Your task to perform on an android device: turn on improve location accuracy Image 0: 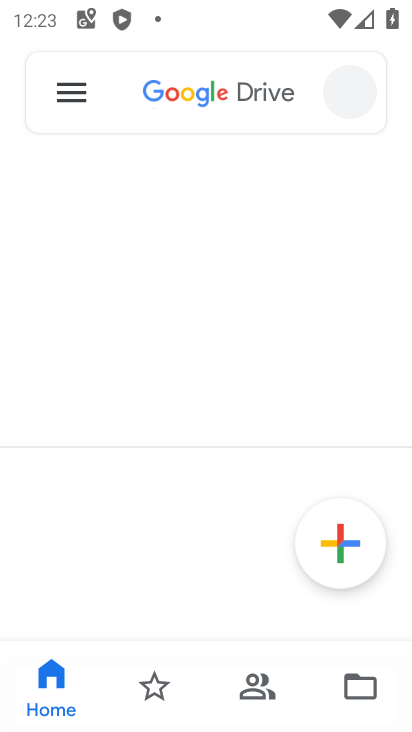
Step 0: drag from (250, 663) to (320, 419)
Your task to perform on an android device: turn on improve location accuracy Image 1: 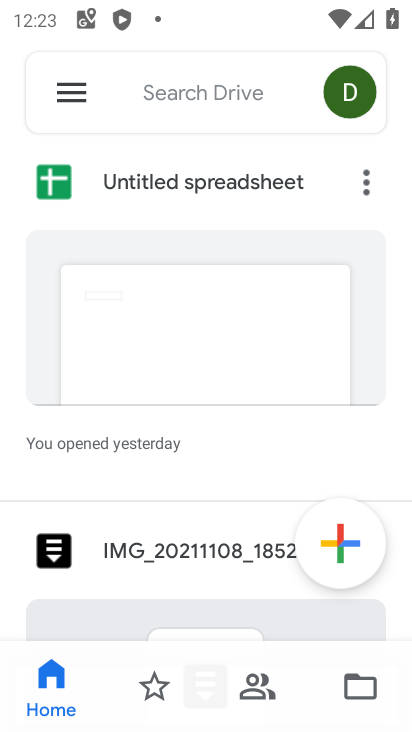
Step 1: press home button
Your task to perform on an android device: turn on improve location accuracy Image 2: 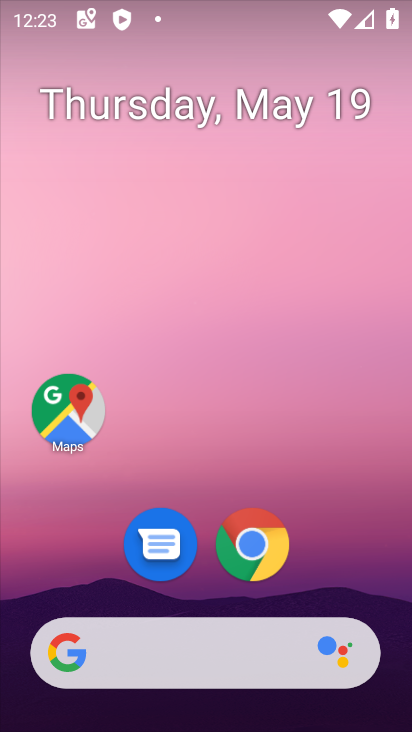
Step 2: drag from (317, 660) to (273, 231)
Your task to perform on an android device: turn on improve location accuracy Image 3: 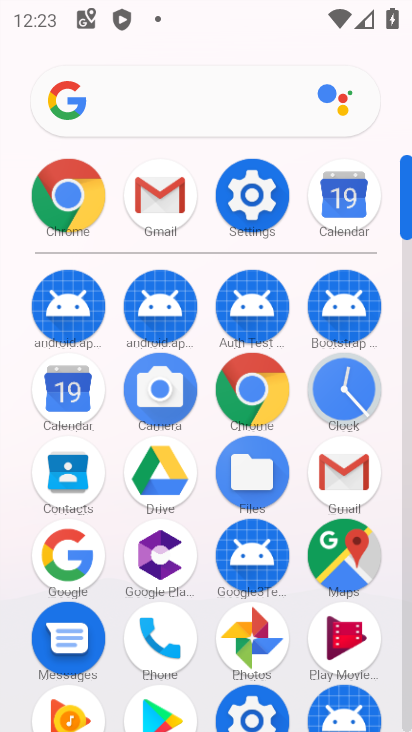
Step 3: click (248, 176)
Your task to perform on an android device: turn on improve location accuracy Image 4: 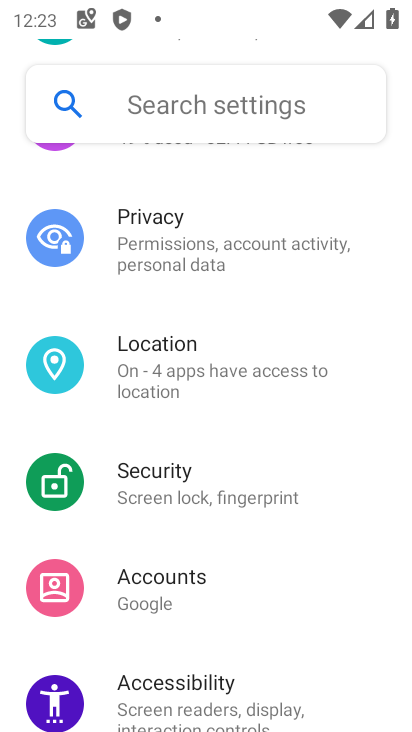
Step 4: drag from (33, 532) to (217, 482)
Your task to perform on an android device: turn on improve location accuracy Image 5: 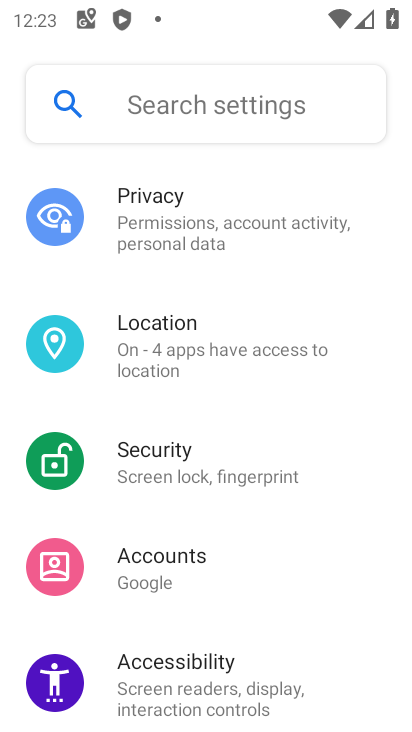
Step 5: click (216, 354)
Your task to perform on an android device: turn on improve location accuracy Image 6: 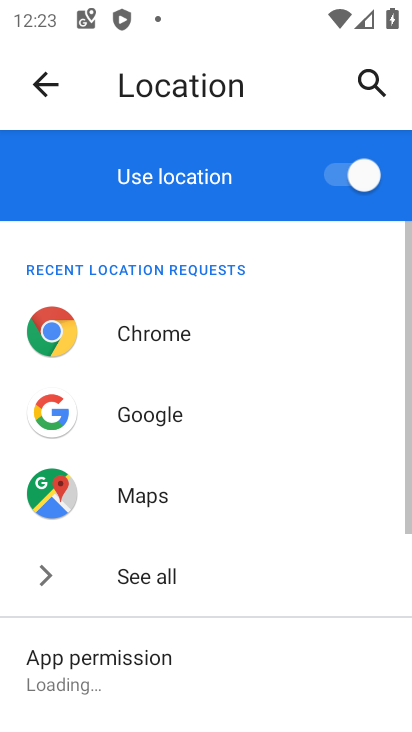
Step 6: drag from (228, 633) to (250, 257)
Your task to perform on an android device: turn on improve location accuracy Image 7: 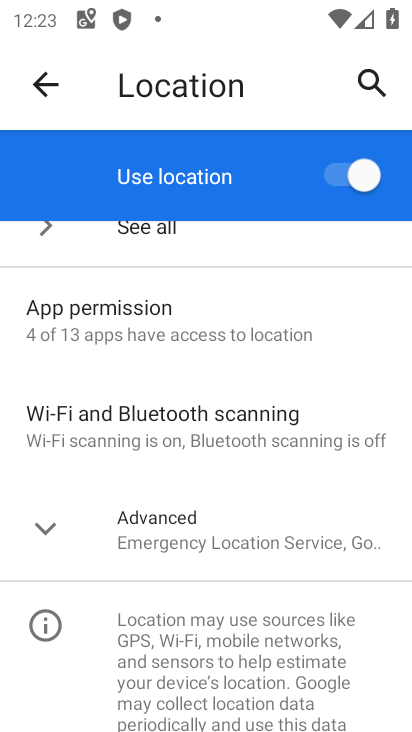
Step 7: click (232, 538)
Your task to perform on an android device: turn on improve location accuracy Image 8: 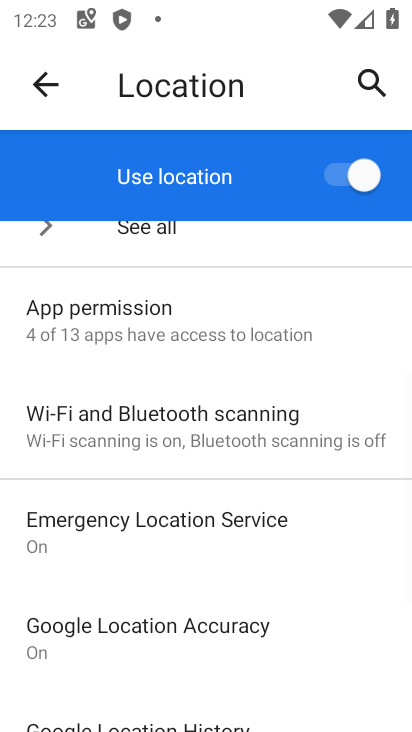
Step 8: click (229, 636)
Your task to perform on an android device: turn on improve location accuracy Image 9: 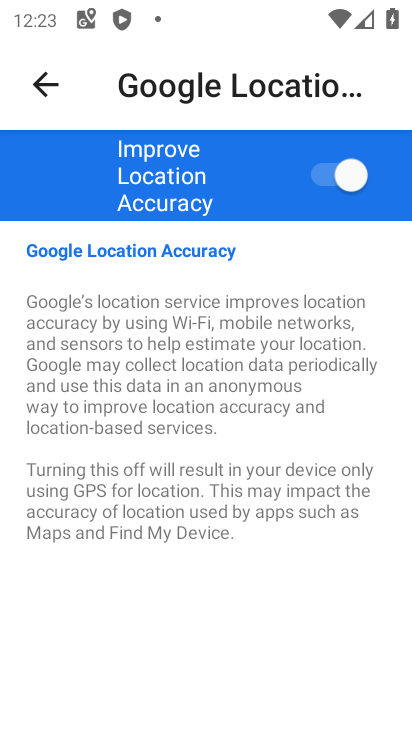
Step 9: task complete